Your task to perform on an android device: Open display settings Image 0: 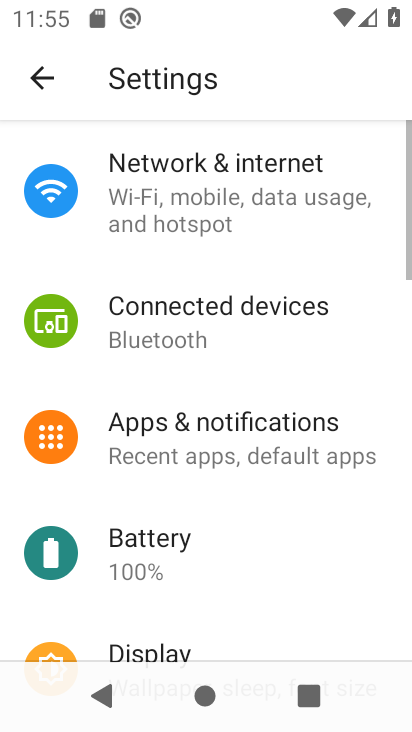
Step 0: drag from (227, 523) to (269, 257)
Your task to perform on an android device: Open display settings Image 1: 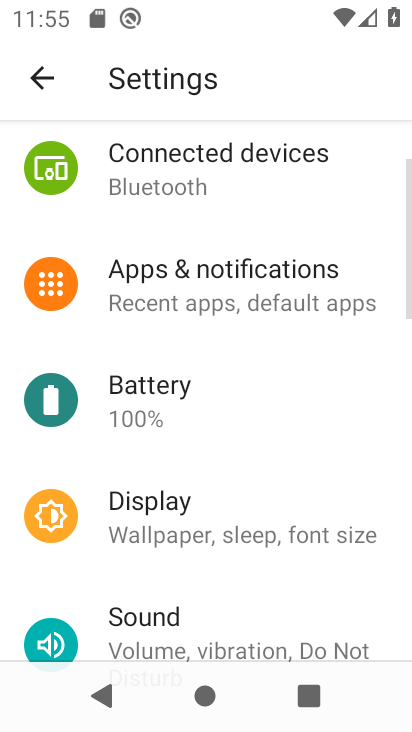
Step 1: click (205, 512)
Your task to perform on an android device: Open display settings Image 2: 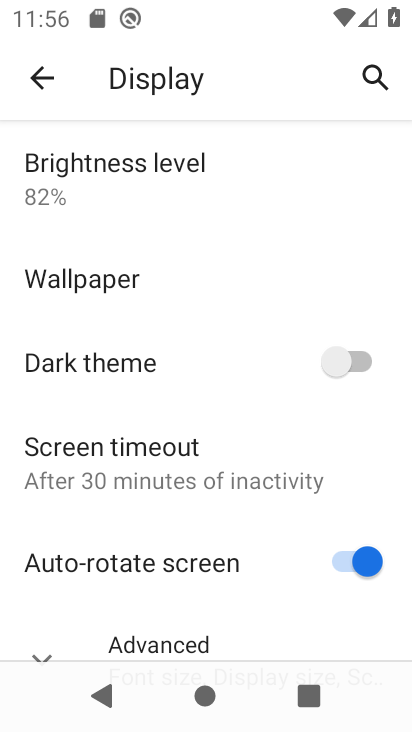
Step 2: task complete